Your task to perform on an android device: Go to notification settings Image 0: 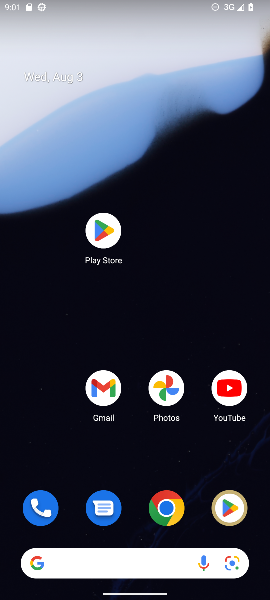
Step 0: drag from (160, 539) to (103, 59)
Your task to perform on an android device: Go to notification settings Image 1: 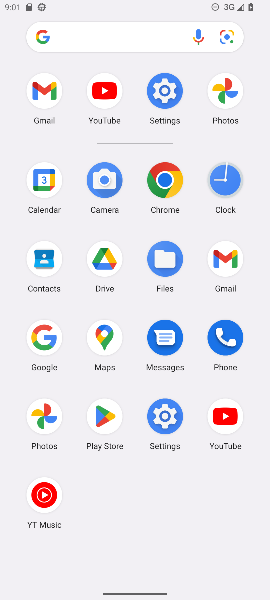
Step 1: click (33, 181)
Your task to perform on an android device: Go to notification settings Image 2: 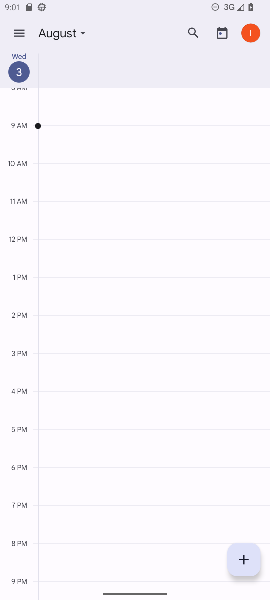
Step 2: press back button
Your task to perform on an android device: Go to notification settings Image 3: 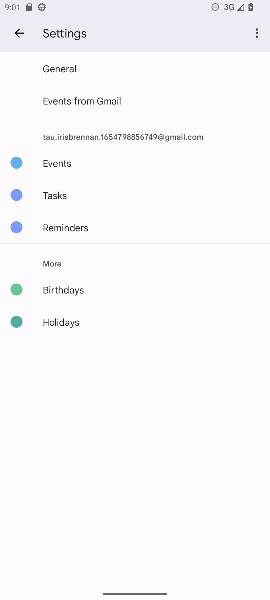
Step 3: press back button
Your task to perform on an android device: Go to notification settings Image 4: 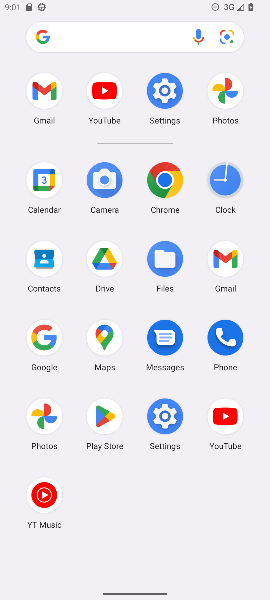
Step 4: press back button
Your task to perform on an android device: Go to notification settings Image 5: 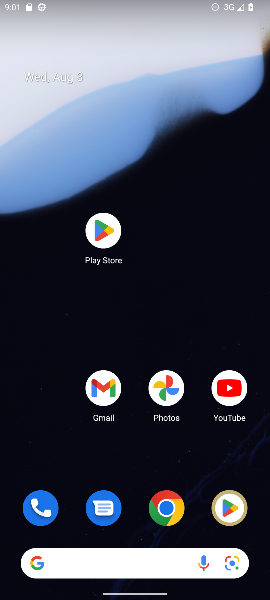
Step 5: drag from (127, 531) to (115, 32)
Your task to perform on an android device: Go to notification settings Image 6: 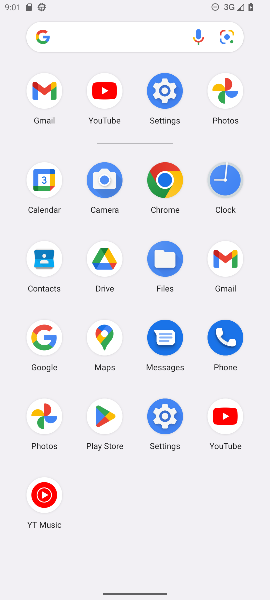
Step 6: click (170, 433)
Your task to perform on an android device: Go to notification settings Image 7: 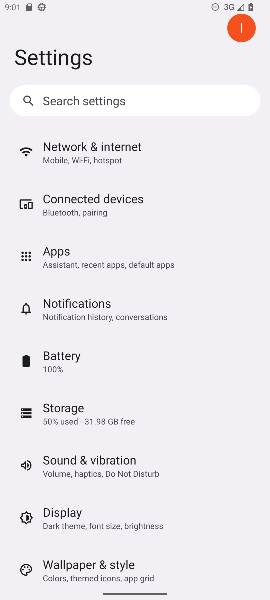
Step 7: click (50, 312)
Your task to perform on an android device: Go to notification settings Image 8: 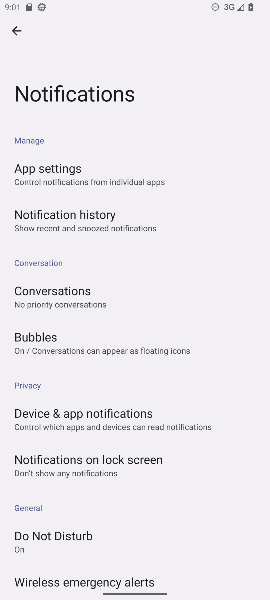
Step 8: task complete